Your task to perform on an android device: What's the weather? Image 0: 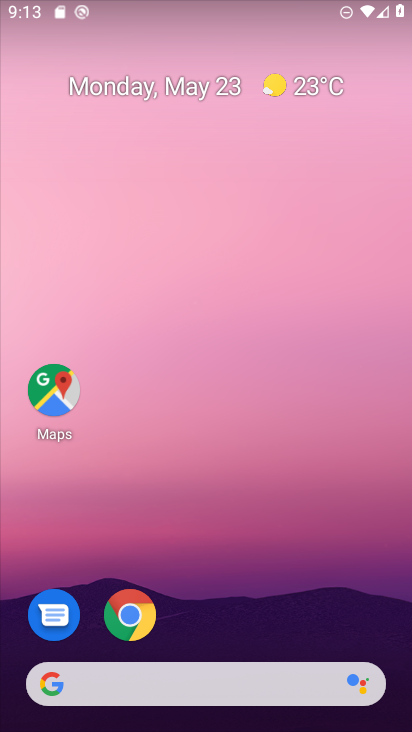
Step 0: drag from (237, 616) to (176, 72)
Your task to perform on an android device: What's the weather? Image 1: 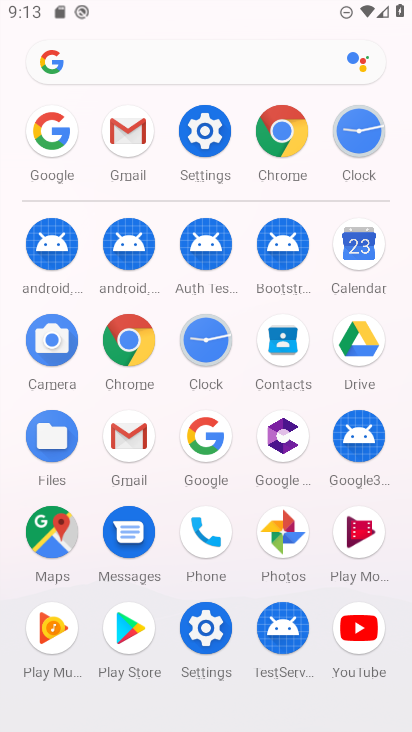
Step 1: click (48, 131)
Your task to perform on an android device: What's the weather? Image 2: 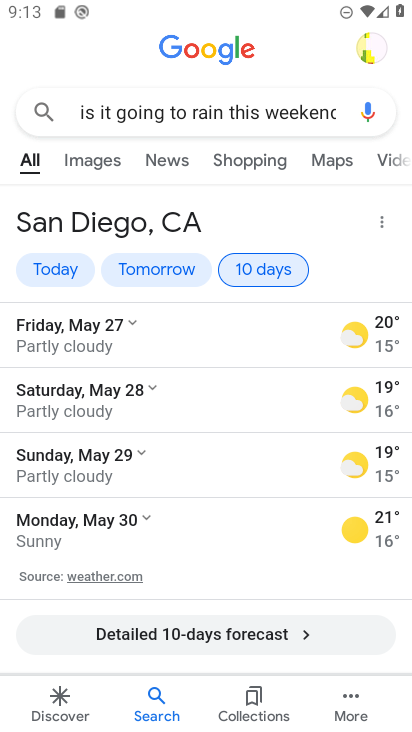
Step 2: click (314, 115)
Your task to perform on an android device: What's the weather? Image 3: 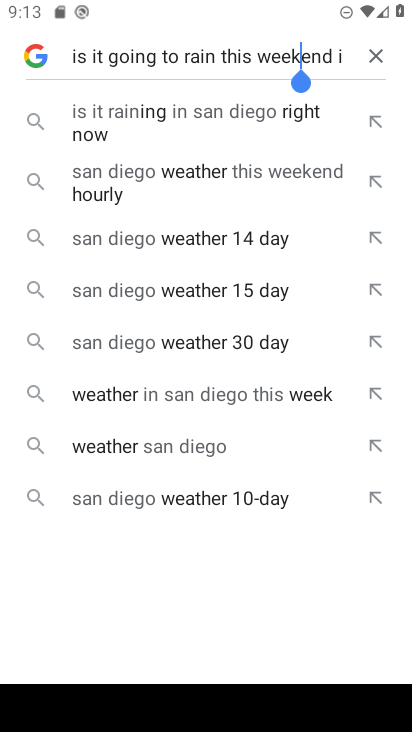
Step 3: click (371, 52)
Your task to perform on an android device: What's the weather? Image 4: 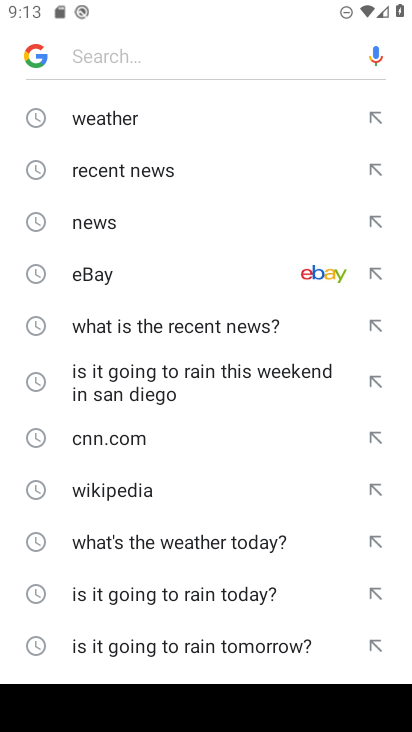
Step 4: click (110, 123)
Your task to perform on an android device: What's the weather? Image 5: 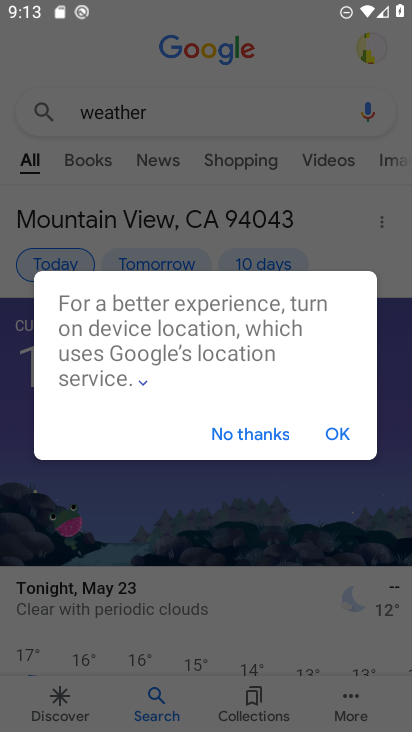
Step 5: click (254, 432)
Your task to perform on an android device: What's the weather? Image 6: 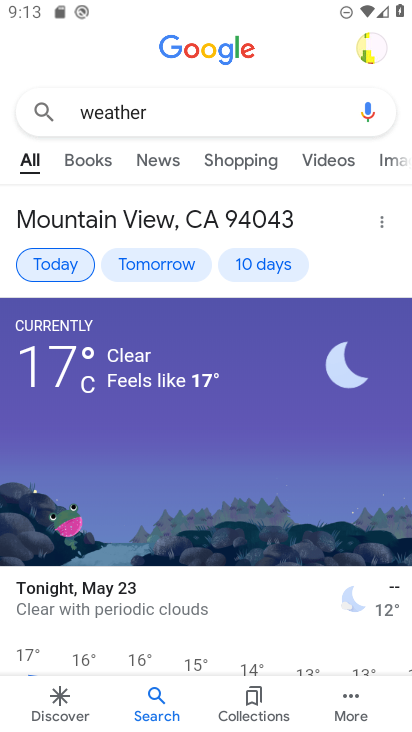
Step 6: task complete